Your task to perform on an android device: Open Youtube and go to "Your channel" Image 0: 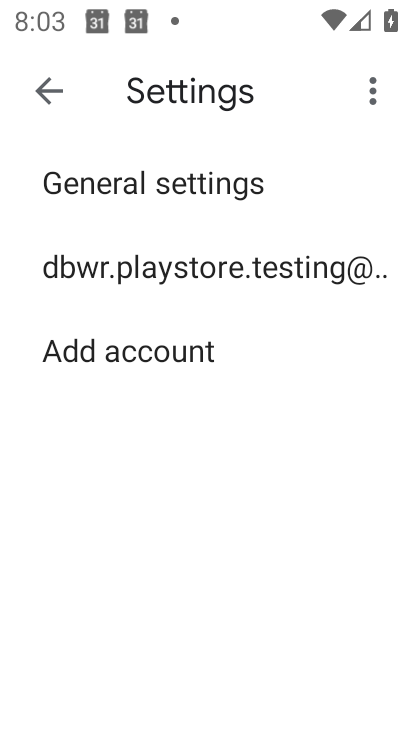
Step 0: press home button
Your task to perform on an android device: Open Youtube and go to "Your channel" Image 1: 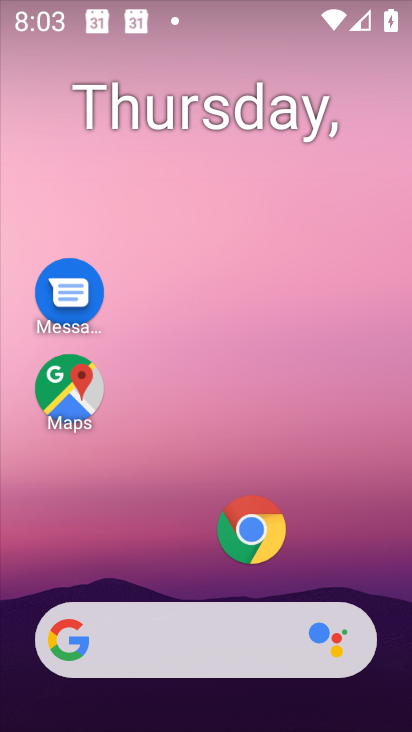
Step 1: drag from (165, 569) to (221, 3)
Your task to perform on an android device: Open Youtube and go to "Your channel" Image 2: 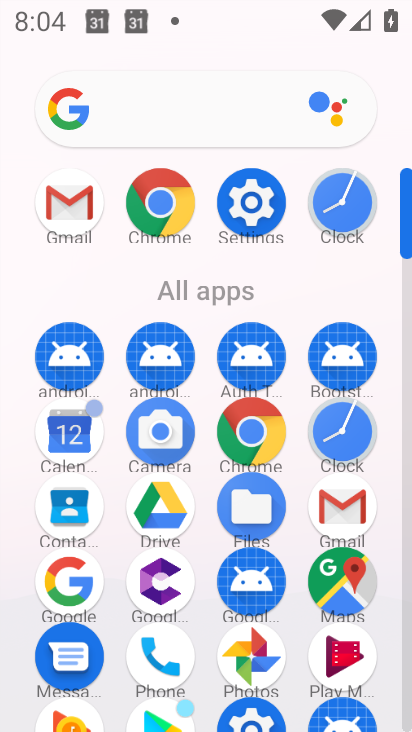
Step 2: drag from (196, 612) to (230, 28)
Your task to perform on an android device: Open Youtube and go to "Your channel" Image 3: 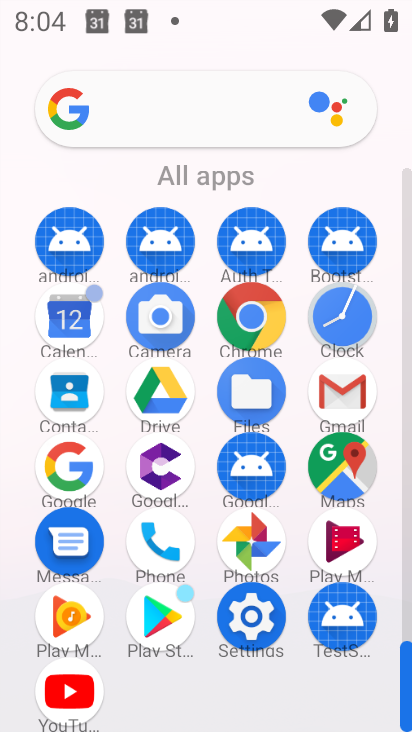
Step 3: click (57, 688)
Your task to perform on an android device: Open Youtube and go to "Your channel" Image 4: 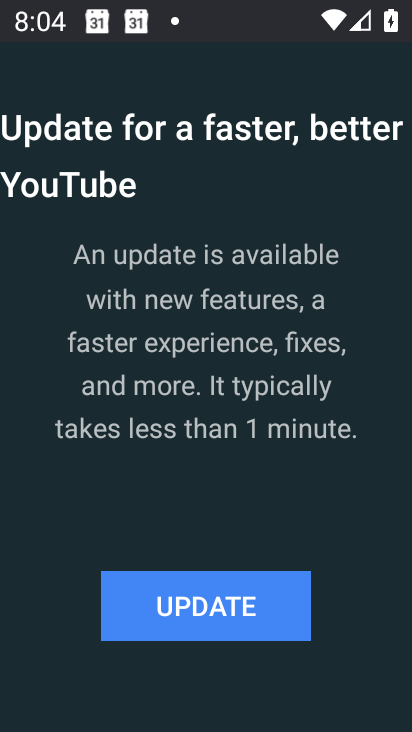
Step 4: click (186, 621)
Your task to perform on an android device: Open Youtube and go to "Your channel" Image 5: 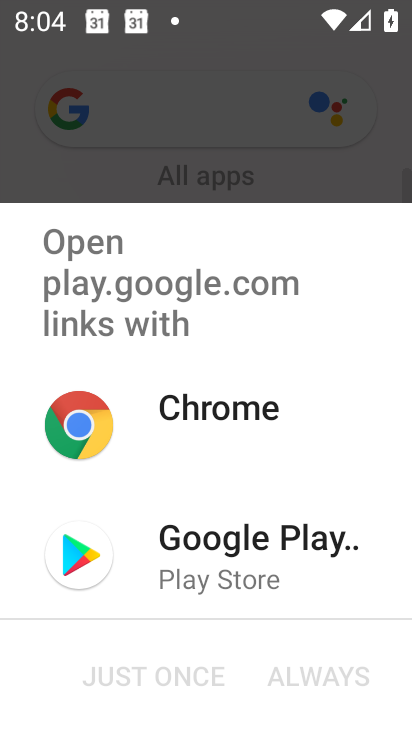
Step 5: click (271, 553)
Your task to perform on an android device: Open Youtube and go to "Your channel" Image 6: 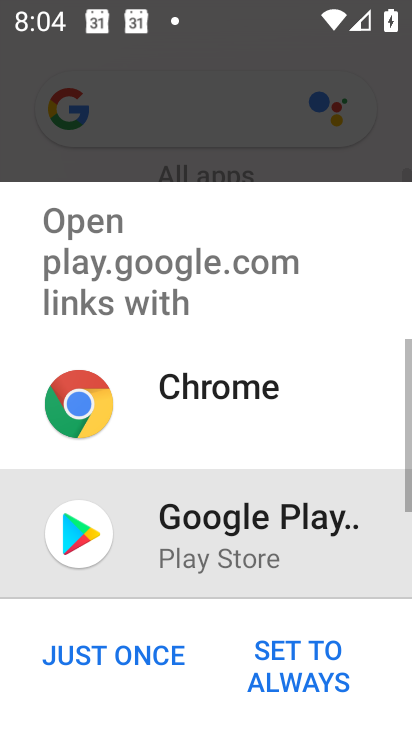
Step 6: click (96, 667)
Your task to perform on an android device: Open Youtube and go to "Your channel" Image 7: 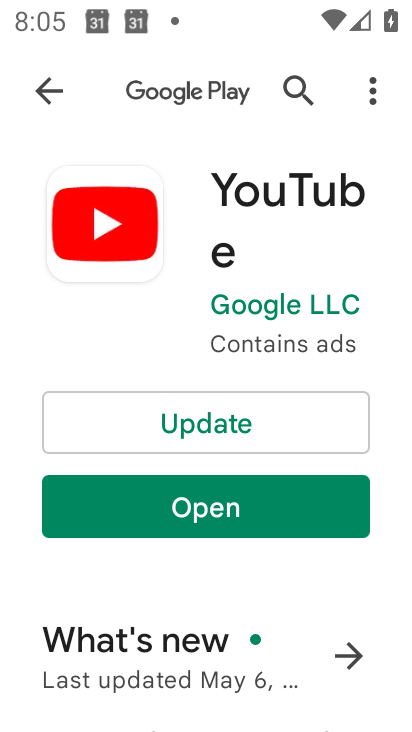
Step 7: click (216, 420)
Your task to perform on an android device: Open Youtube and go to "Your channel" Image 8: 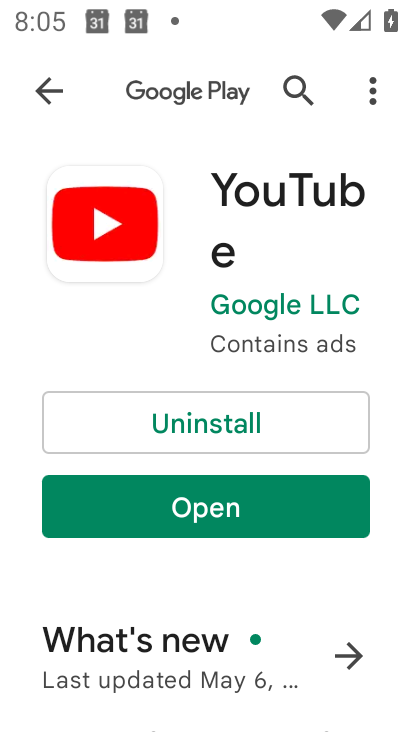
Step 8: click (213, 522)
Your task to perform on an android device: Open Youtube and go to "Your channel" Image 9: 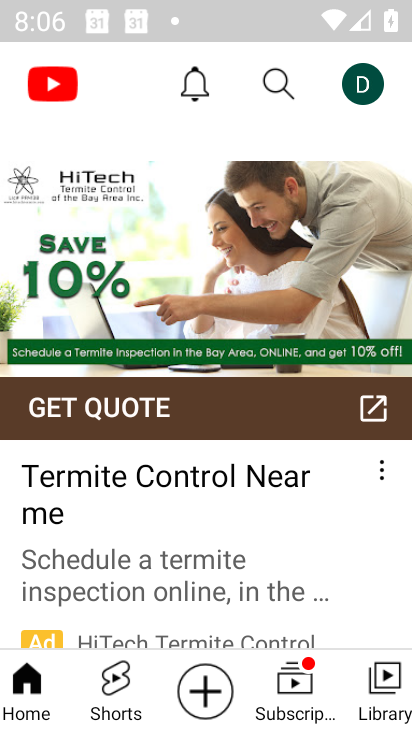
Step 9: click (284, 80)
Your task to perform on an android device: Open Youtube and go to "Your channel" Image 10: 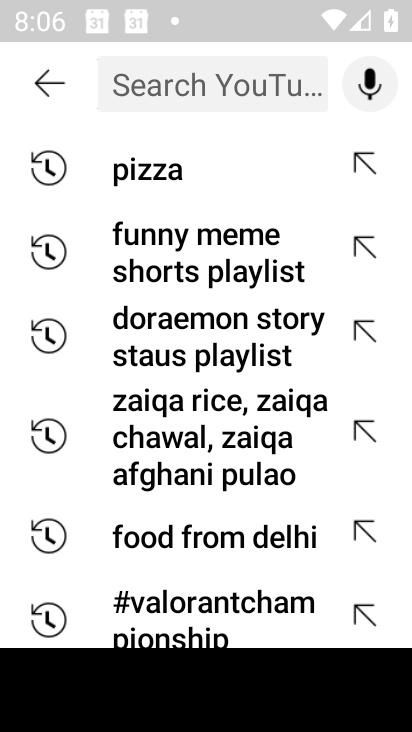
Step 10: type "your channel"
Your task to perform on an android device: Open Youtube and go to "Your channel" Image 11: 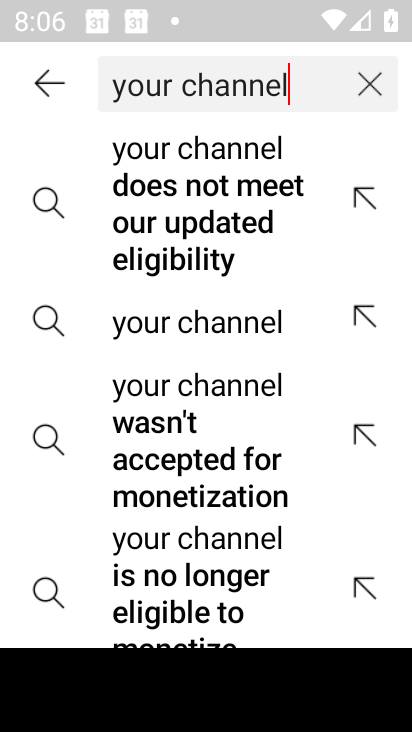
Step 11: click (143, 318)
Your task to perform on an android device: Open Youtube and go to "Your channel" Image 12: 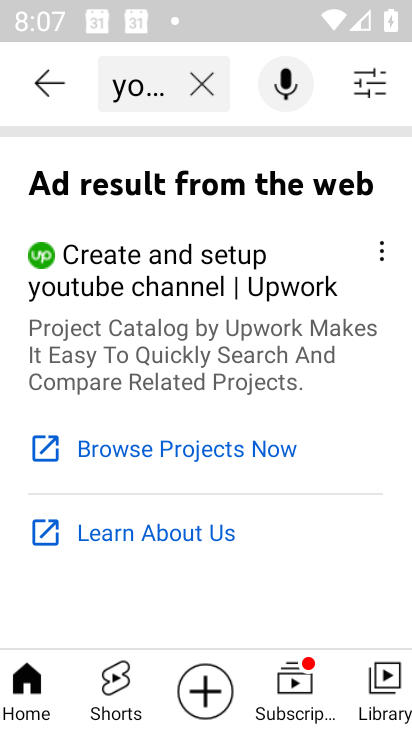
Step 12: task complete